Your task to perform on an android device: open chrome privacy settings Image 0: 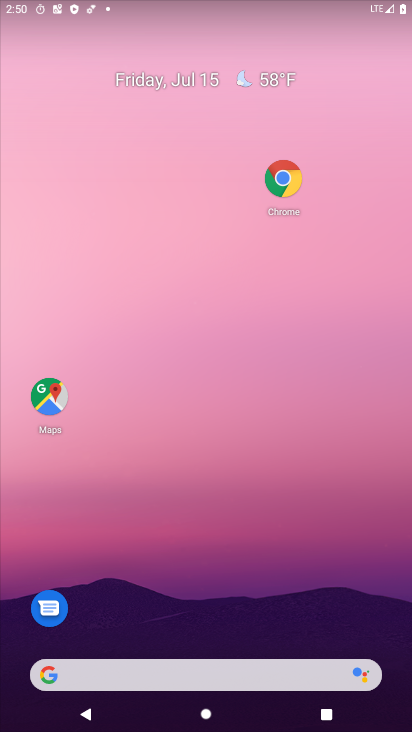
Step 0: press home button
Your task to perform on an android device: open chrome privacy settings Image 1: 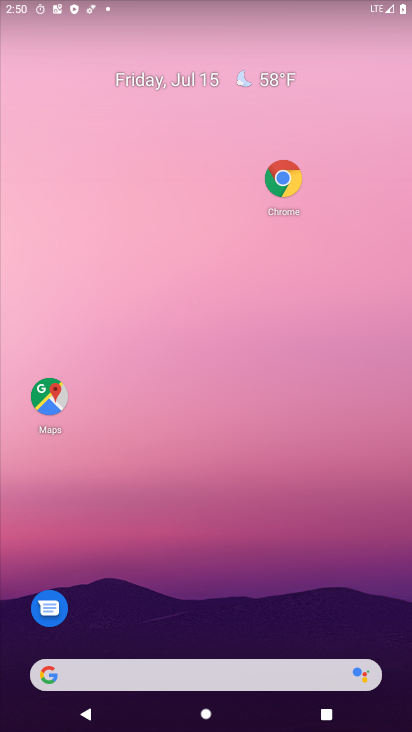
Step 1: click (306, 186)
Your task to perform on an android device: open chrome privacy settings Image 2: 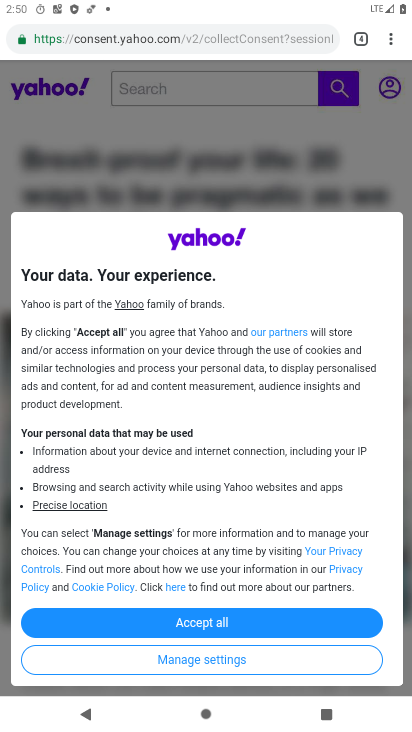
Step 2: drag from (395, 46) to (225, 480)
Your task to perform on an android device: open chrome privacy settings Image 3: 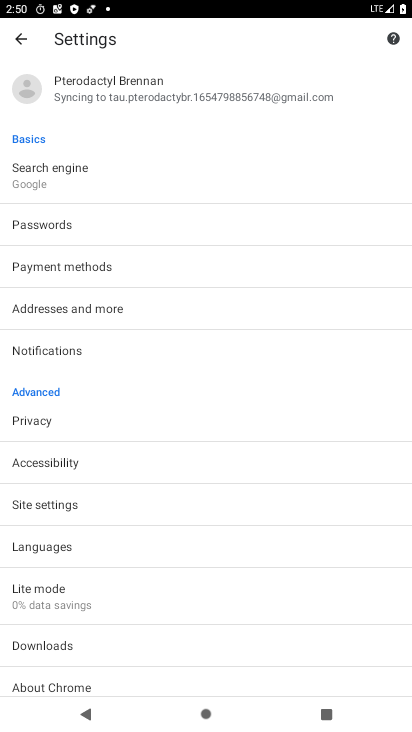
Step 3: click (112, 409)
Your task to perform on an android device: open chrome privacy settings Image 4: 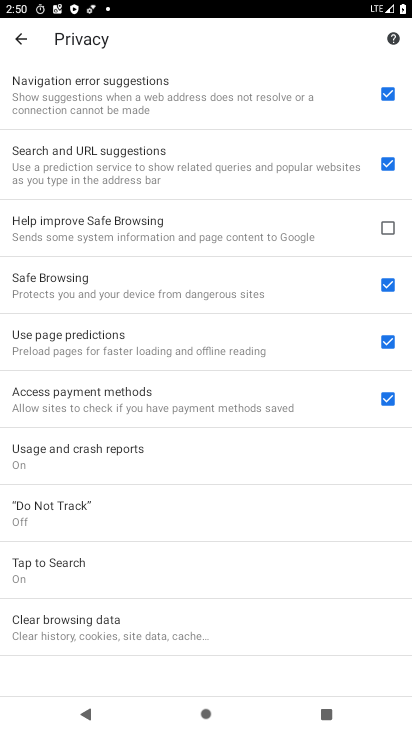
Step 4: task complete